Your task to perform on an android device: remove spam from my inbox in the gmail app Image 0: 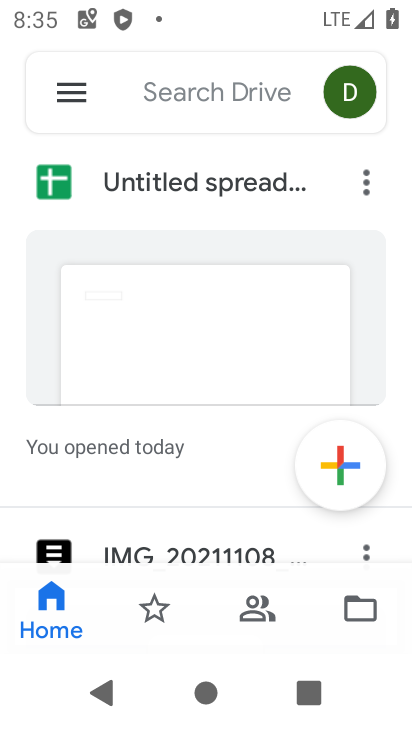
Step 0: press home button
Your task to perform on an android device: remove spam from my inbox in the gmail app Image 1: 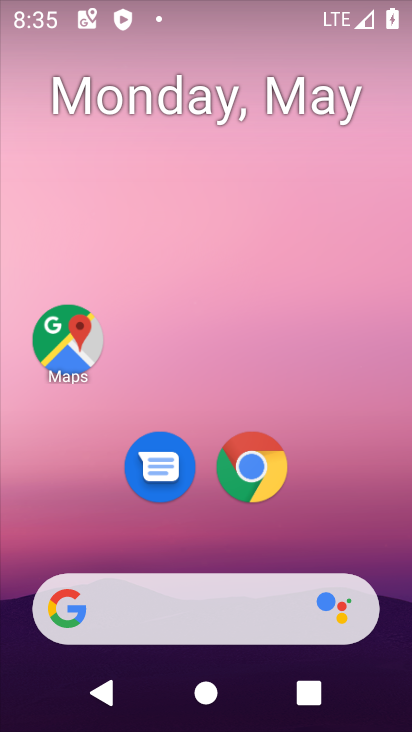
Step 1: drag from (318, 480) to (201, 85)
Your task to perform on an android device: remove spam from my inbox in the gmail app Image 2: 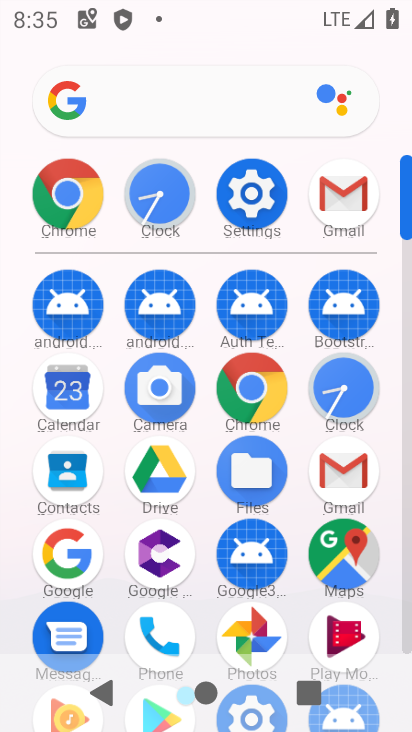
Step 2: click (336, 196)
Your task to perform on an android device: remove spam from my inbox in the gmail app Image 3: 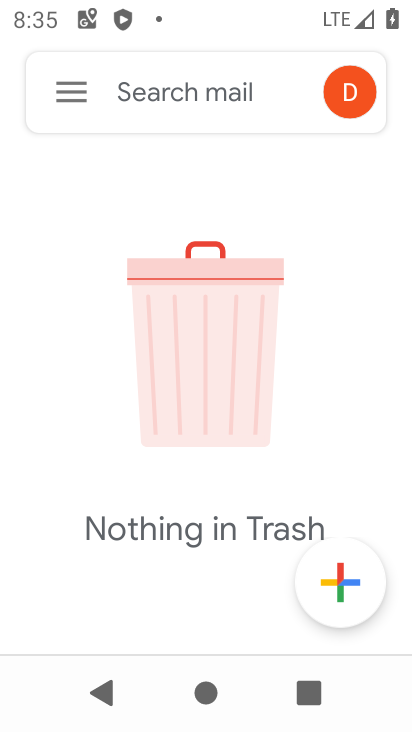
Step 3: click (63, 92)
Your task to perform on an android device: remove spam from my inbox in the gmail app Image 4: 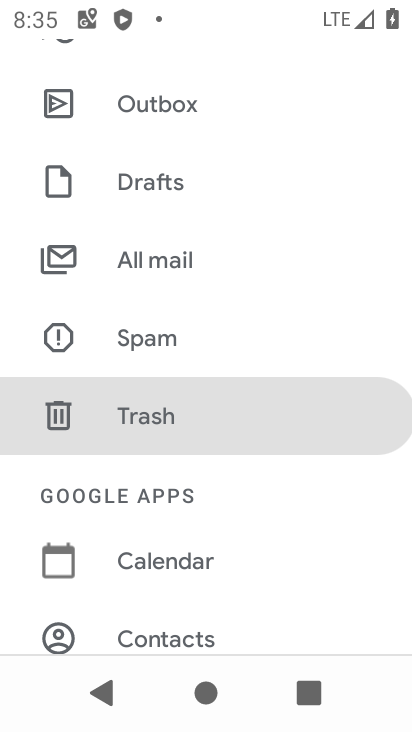
Step 4: click (210, 344)
Your task to perform on an android device: remove spam from my inbox in the gmail app Image 5: 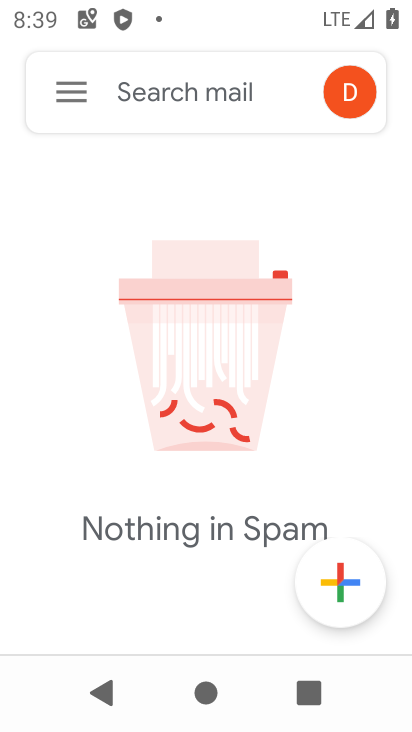
Step 5: task complete